Your task to perform on an android device: toggle notification dots Image 0: 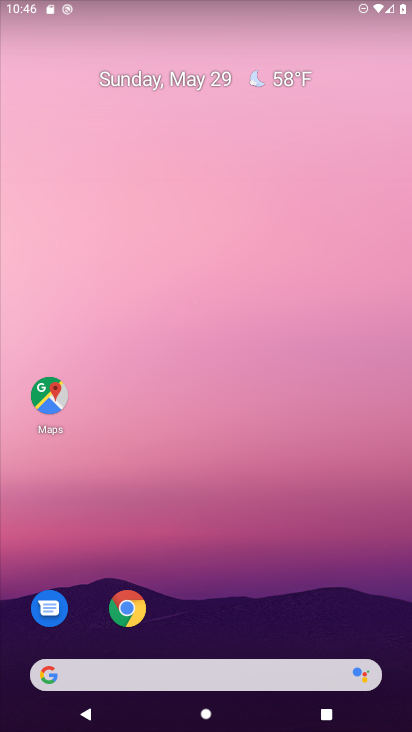
Step 0: drag from (242, 656) to (265, 241)
Your task to perform on an android device: toggle notification dots Image 1: 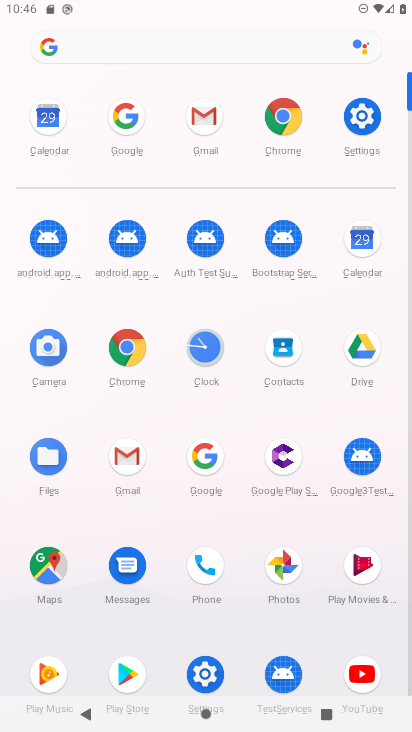
Step 1: click (360, 113)
Your task to perform on an android device: toggle notification dots Image 2: 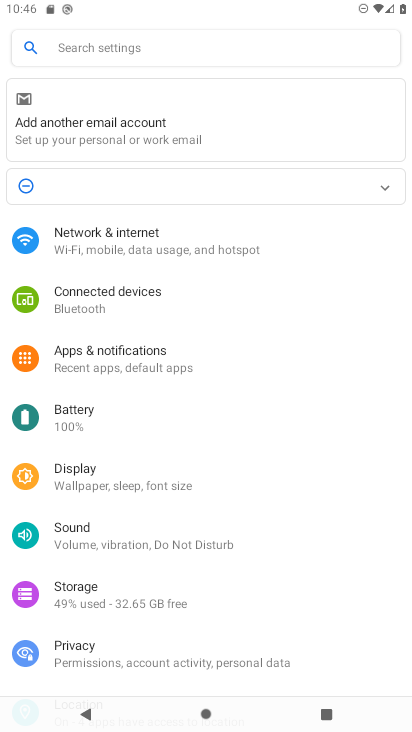
Step 2: click (120, 359)
Your task to perform on an android device: toggle notification dots Image 3: 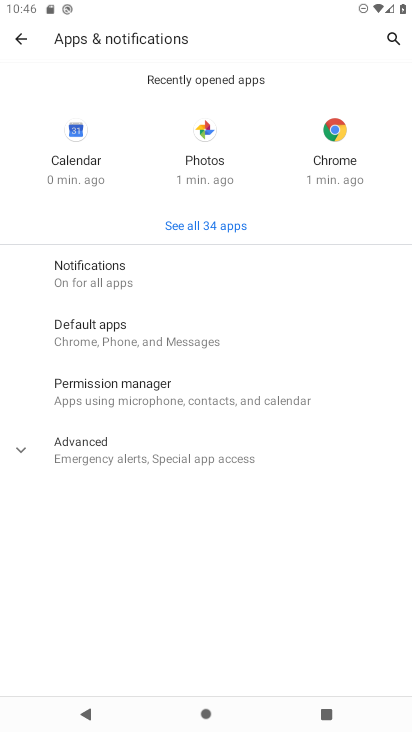
Step 3: click (96, 284)
Your task to perform on an android device: toggle notification dots Image 4: 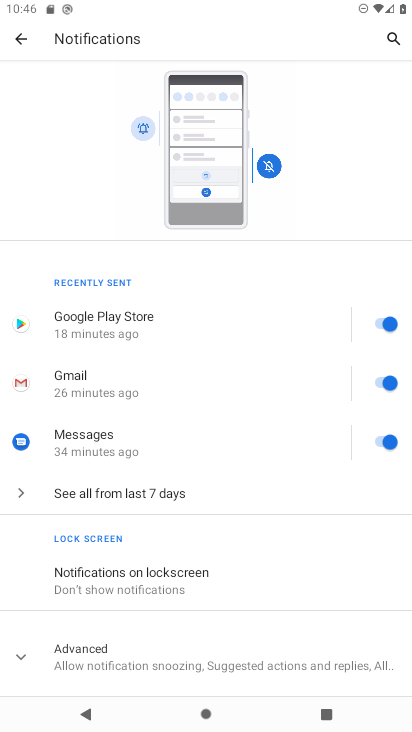
Step 4: click (114, 657)
Your task to perform on an android device: toggle notification dots Image 5: 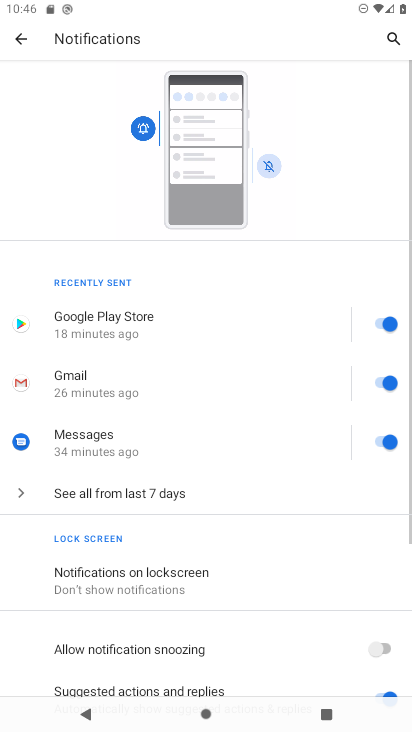
Step 5: drag from (163, 664) to (213, 293)
Your task to perform on an android device: toggle notification dots Image 6: 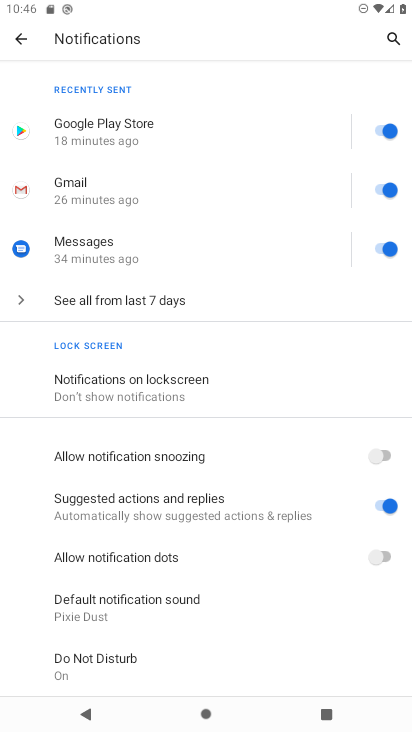
Step 6: click (384, 552)
Your task to perform on an android device: toggle notification dots Image 7: 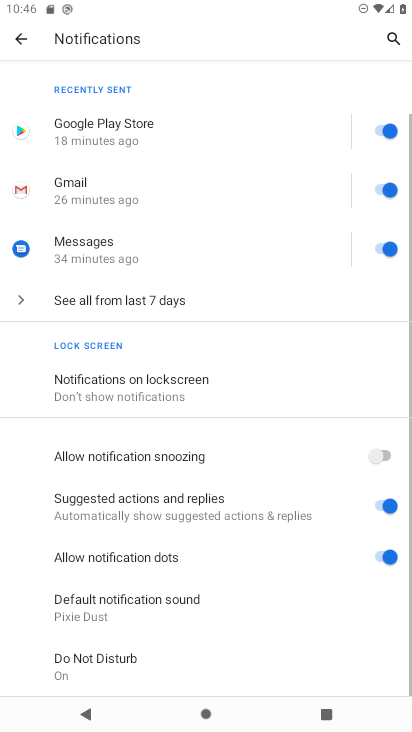
Step 7: task complete